Your task to perform on an android device: Open Wikipedia Image 0: 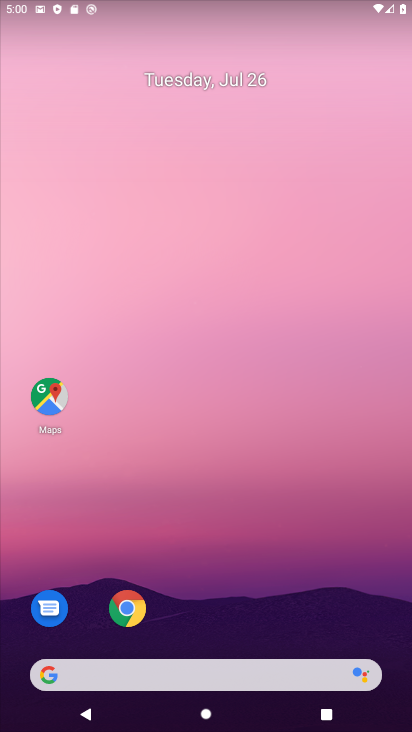
Step 0: press home button
Your task to perform on an android device: Open Wikipedia Image 1: 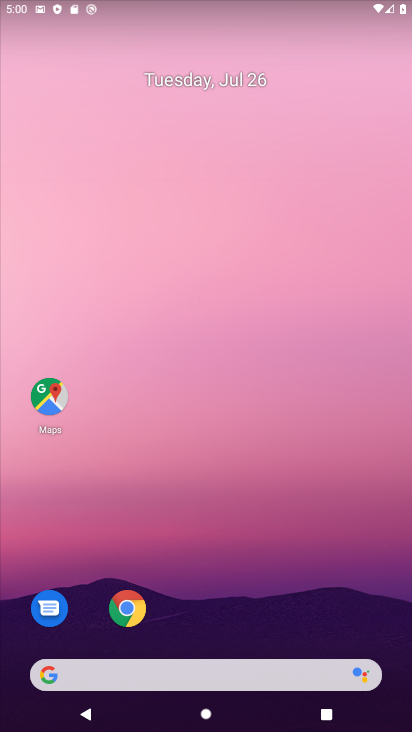
Step 1: click (33, 677)
Your task to perform on an android device: Open Wikipedia Image 2: 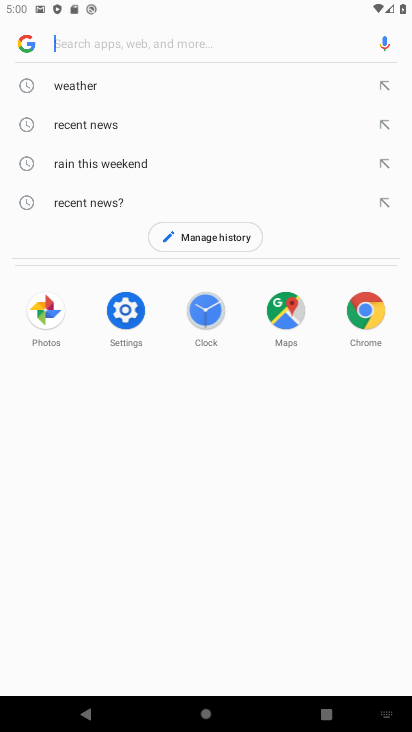
Step 2: type "Wikipedia"
Your task to perform on an android device: Open Wikipedia Image 3: 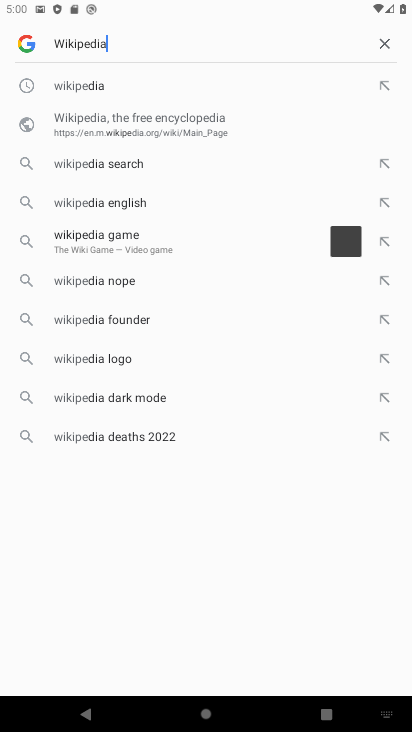
Step 3: press enter
Your task to perform on an android device: Open Wikipedia Image 4: 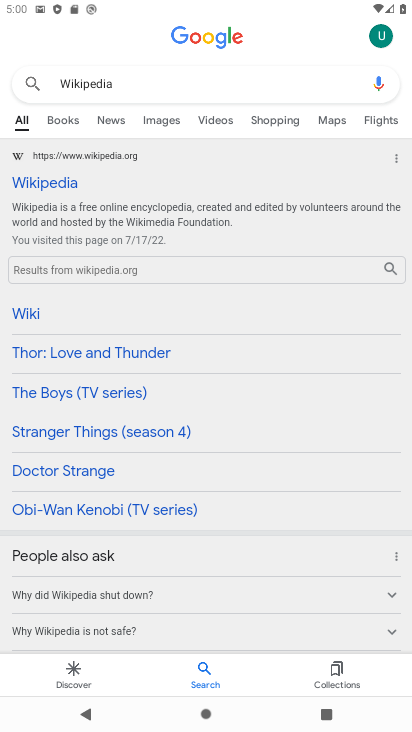
Step 4: click (23, 187)
Your task to perform on an android device: Open Wikipedia Image 5: 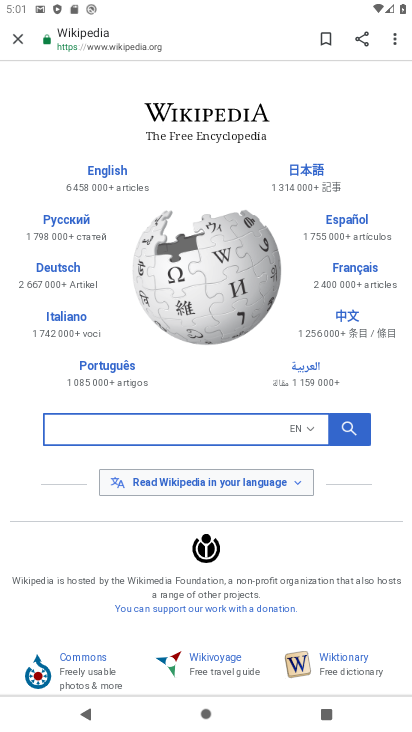
Step 5: task complete